Your task to perform on an android device: Search for Italian restaurants on Maps Image 0: 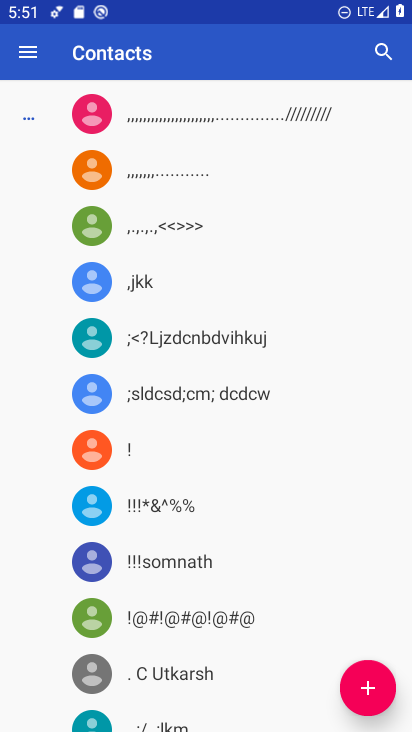
Step 0: press home button
Your task to perform on an android device: Search for Italian restaurants on Maps Image 1: 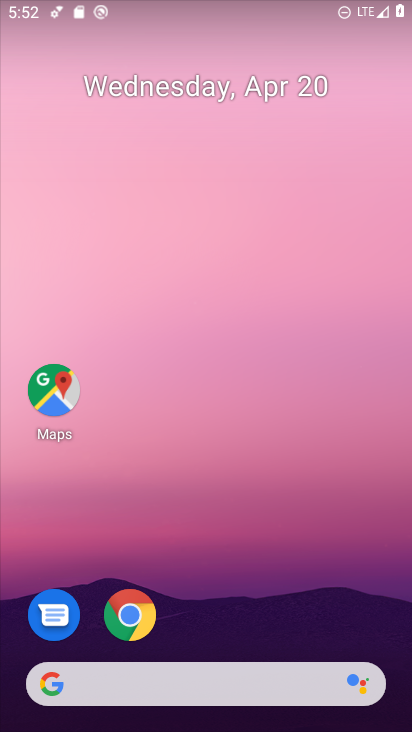
Step 1: click (79, 397)
Your task to perform on an android device: Search for Italian restaurants on Maps Image 2: 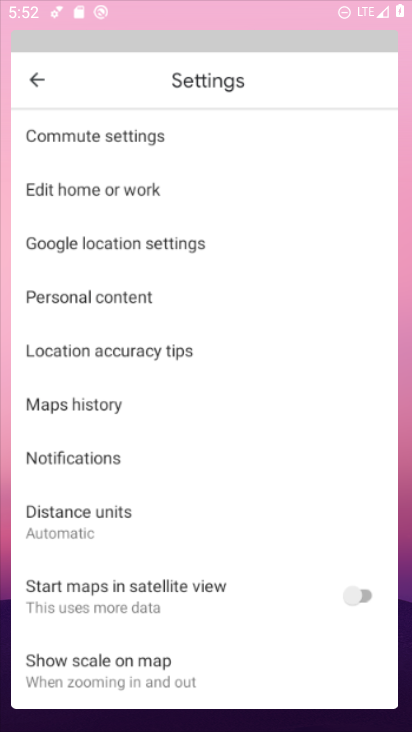
Step 2: click (54, 386)
Your task to perform on an android device: Search for Italian restaurants on Maps Image 3: 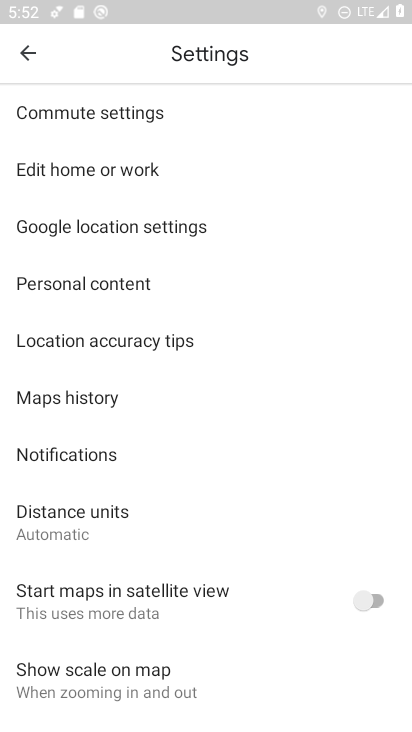
Step 3: click (20, 58)
Your task to perform on an android device: Search for Italian restaurants on Maps Image 4: 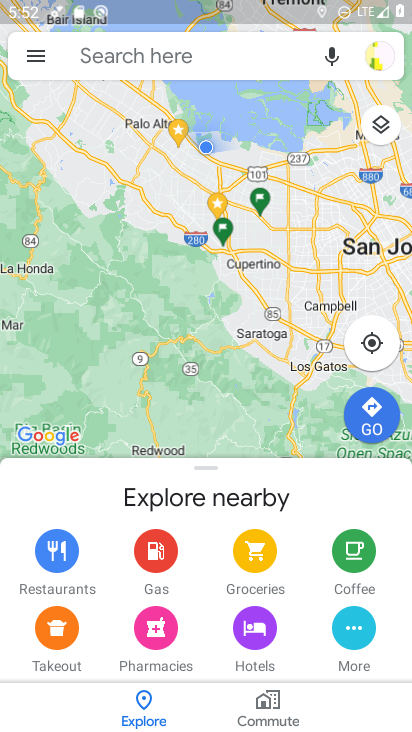
Step 4: click (201, 57)
Your task to perform on an android device: Search for Italian restaurants on Maps Image 5: 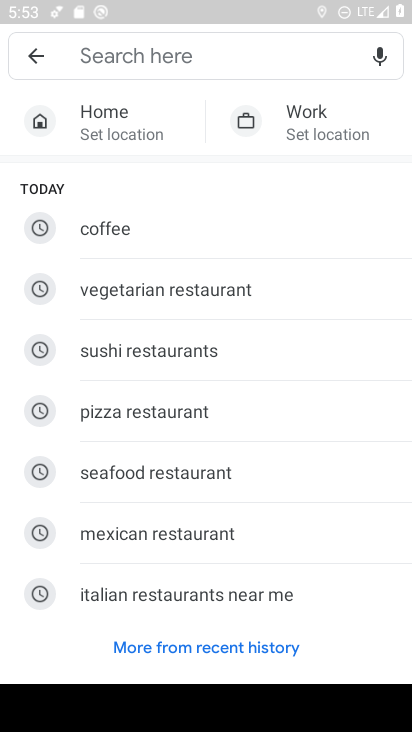
Step 5: type "Italian restaurants"
Your task to perform on an android device: Search for Italian restaurants on Maps Image 6: 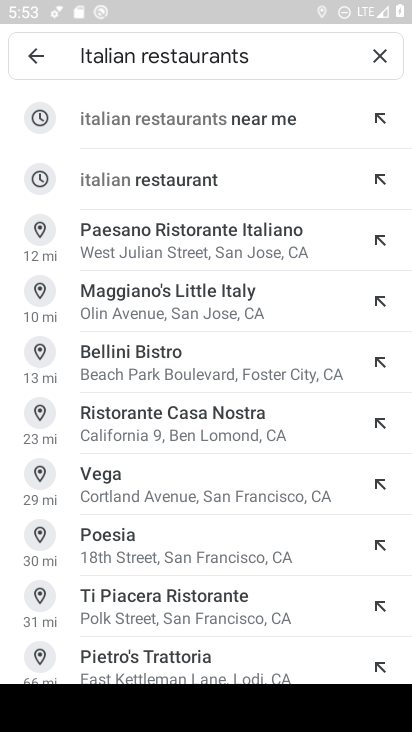
Step 6: click (197, 180)
Your task to perform on an android device: Search for Italian restaurants on Maps Image 7: 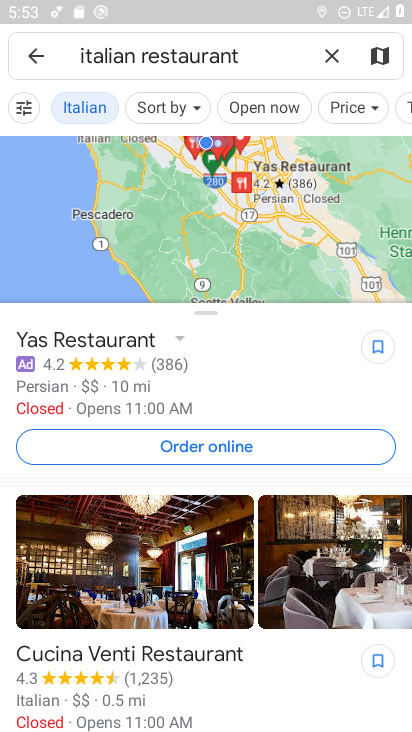
Step 7: task complete